Your task to perform on an android device: all mails in gmail Image 0: 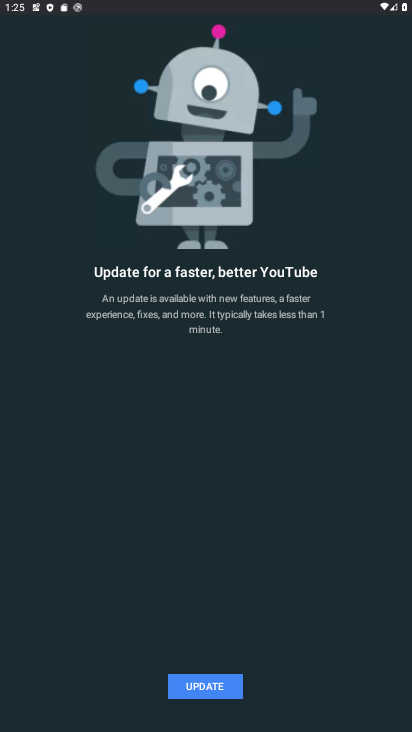
Step 0: press home button
Your task to perform on an android device: all mails in gmail Image 1: 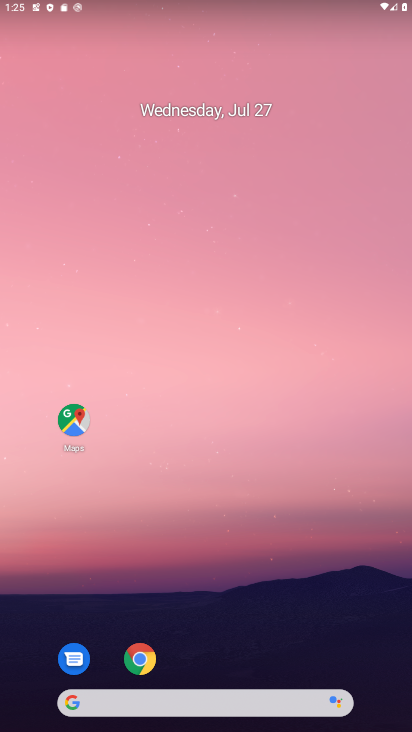
Step 1: drag from (260, 610) to (233, 107)
Your task to perform on an android device: all mails in gmail Image 2: 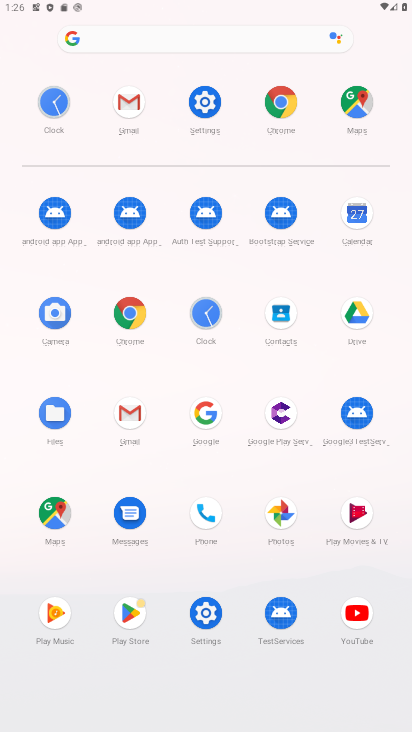
Step 2: click (135, 103)
Your task to perform on an android device: all mails in gmail Image 3: 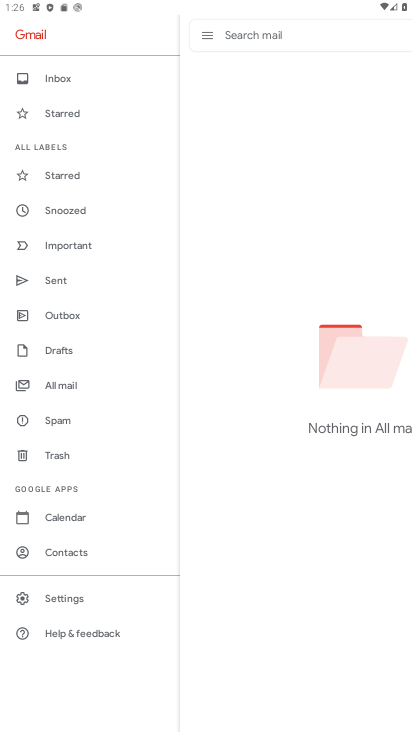
Step 3: click (73, 383)
Your task to perform on an android device: all mails in gmail Image 4: 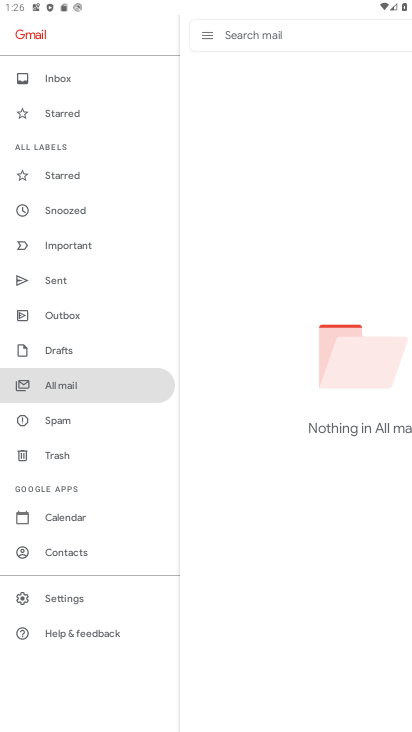
Step 4: task complete